Your task to perform on an android device: Search for the best rated circular saw on Lowes.com Image 0: 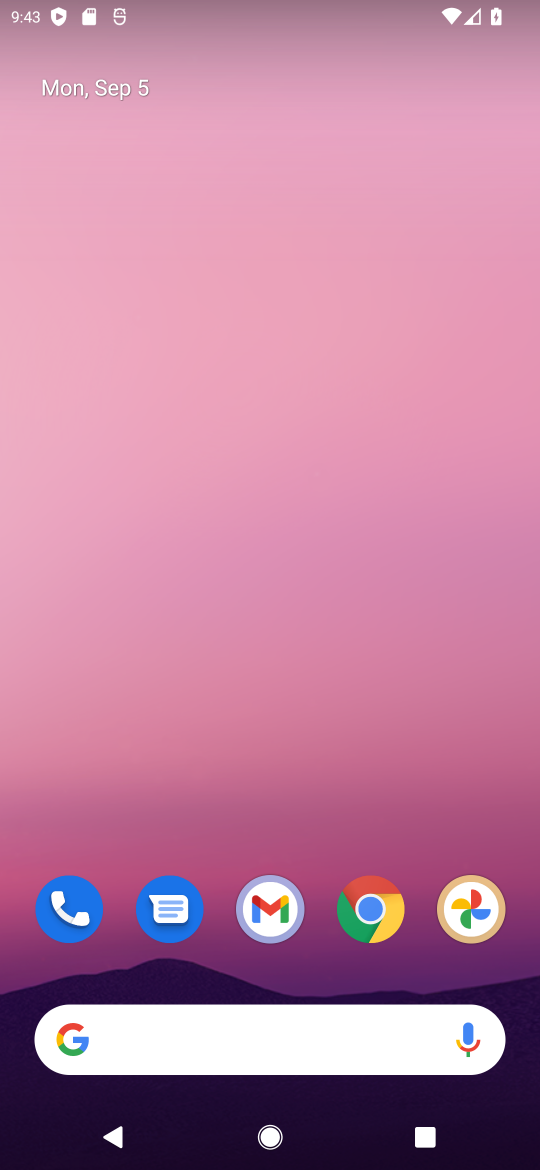
Step 0: task complete